Your task to perform on an android device: Open the stopwatch Image 0: 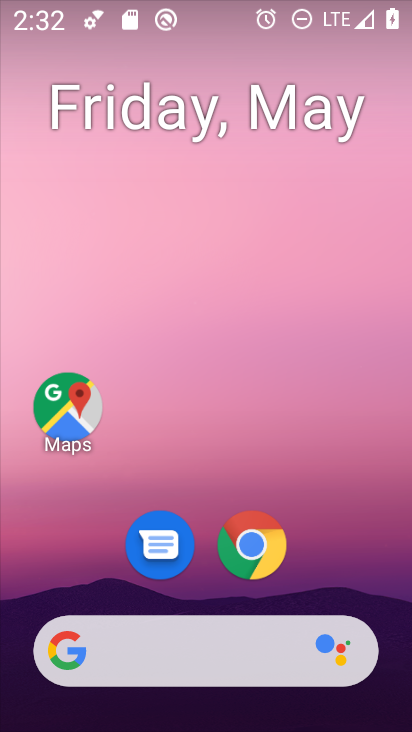
Step 0: drag from (306, 510) to (268, 257)
Your task to perform on an android device: Open the stopwatch Image 1: 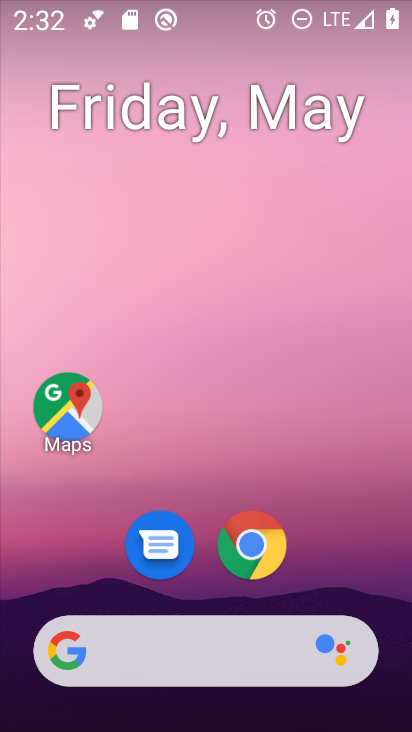
Step 1: drag from (308, 539) to (250, 246)
Your task to perform on an android device: Open the stopwatch Image 2: 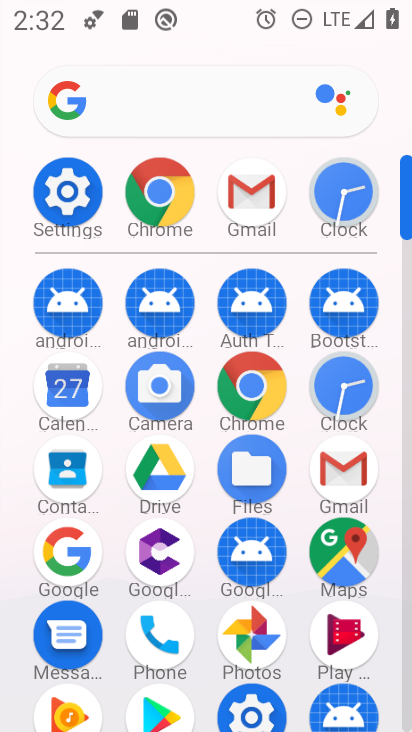
Step 2: click (334, 371)
Your task to perform on an android device: Open the stopwatch Image 3: 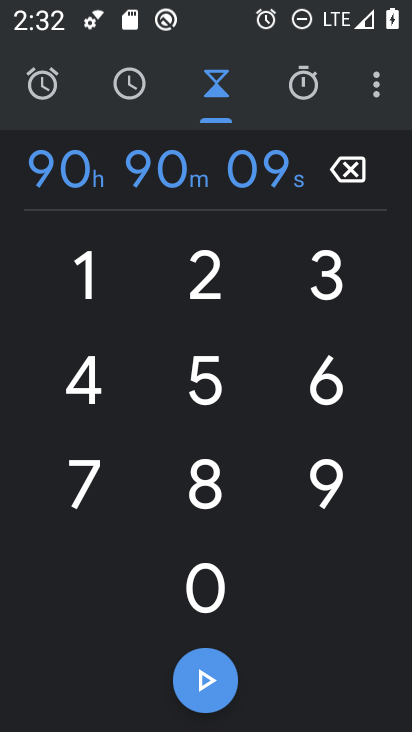
Step 3: click (300, 84)
Your task to perform on an android device: Open the stopwatch Image 4: 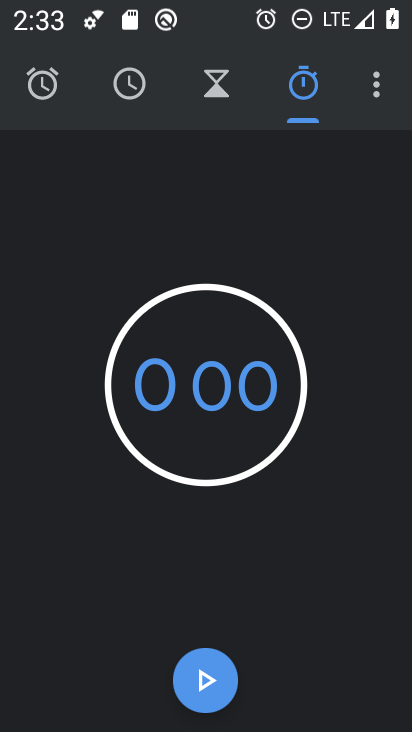
Step 4: task complete